Your task to perform on an android device: Open Google Image 0: 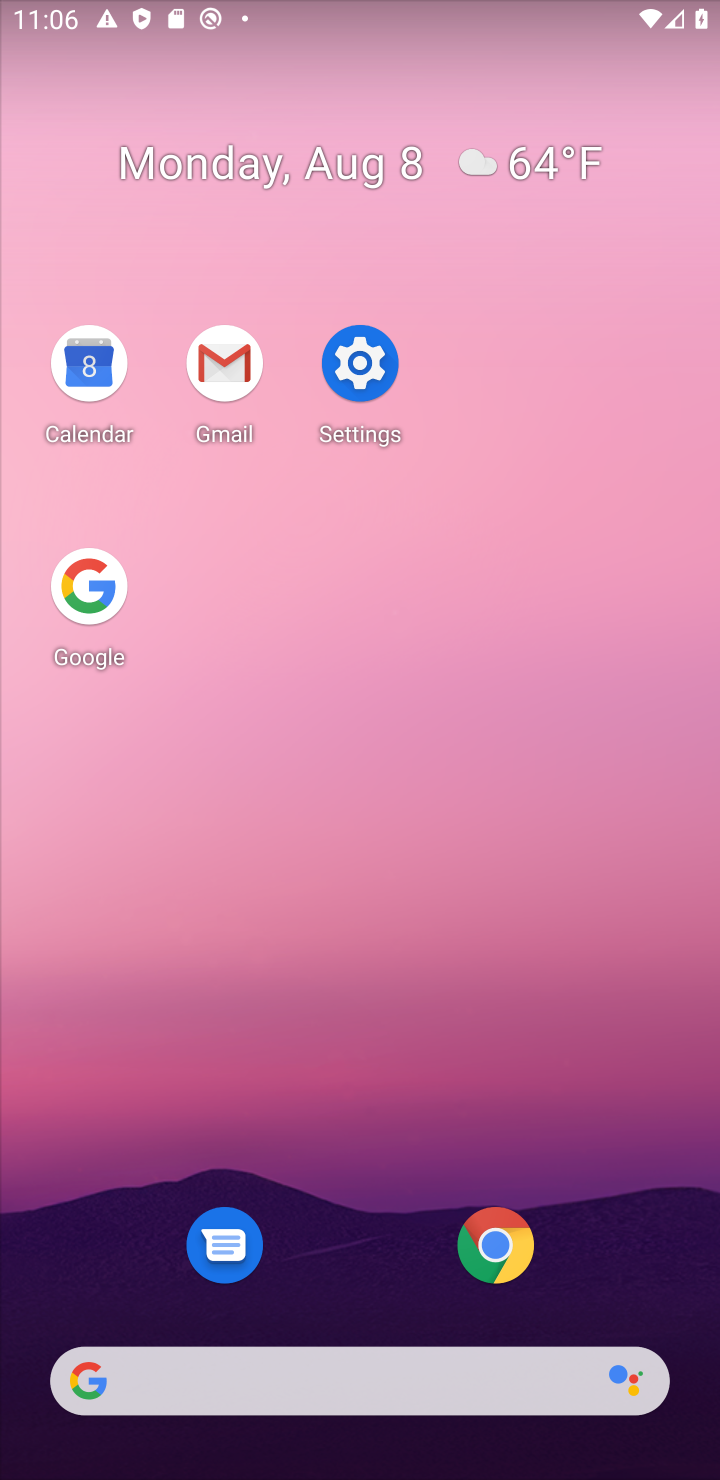
Step 0: drag from (417, 718) to (476, 359)
Your task to perform on an android device: Open Google Image 1: 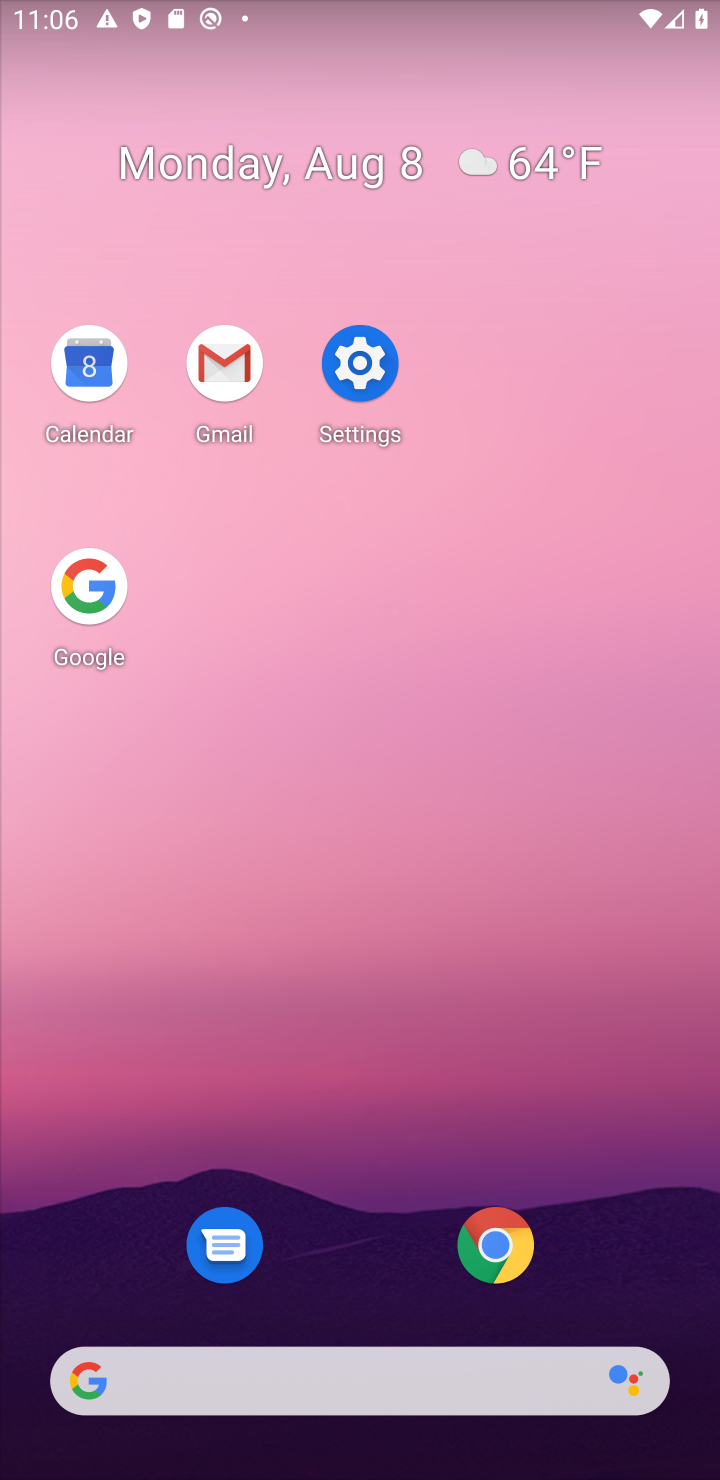
Step 1: drag from (356, 1286) to (374, 392)
Your task to perform on an android device: Open Google Image 2: 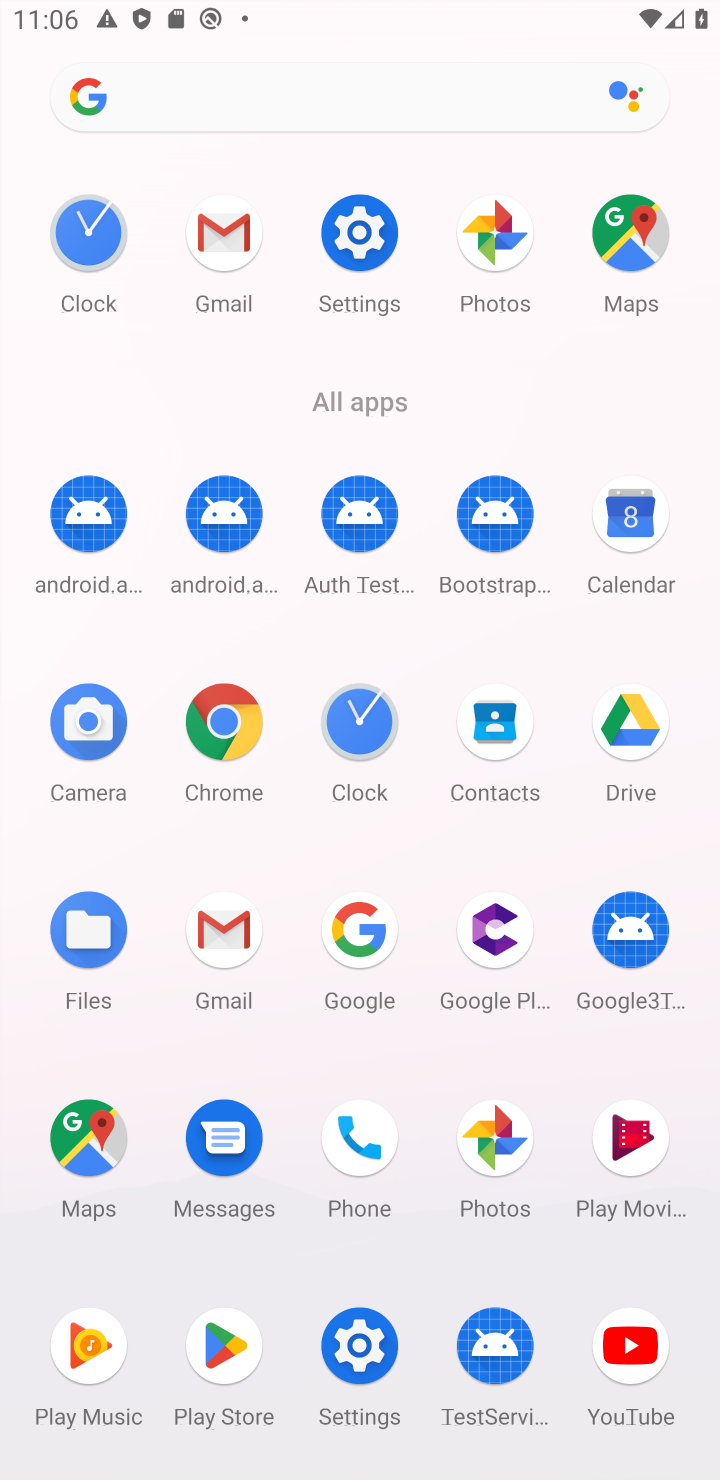
Step 2: click (374, 921)
Your task to perform on an android device: Open Google Image 3: 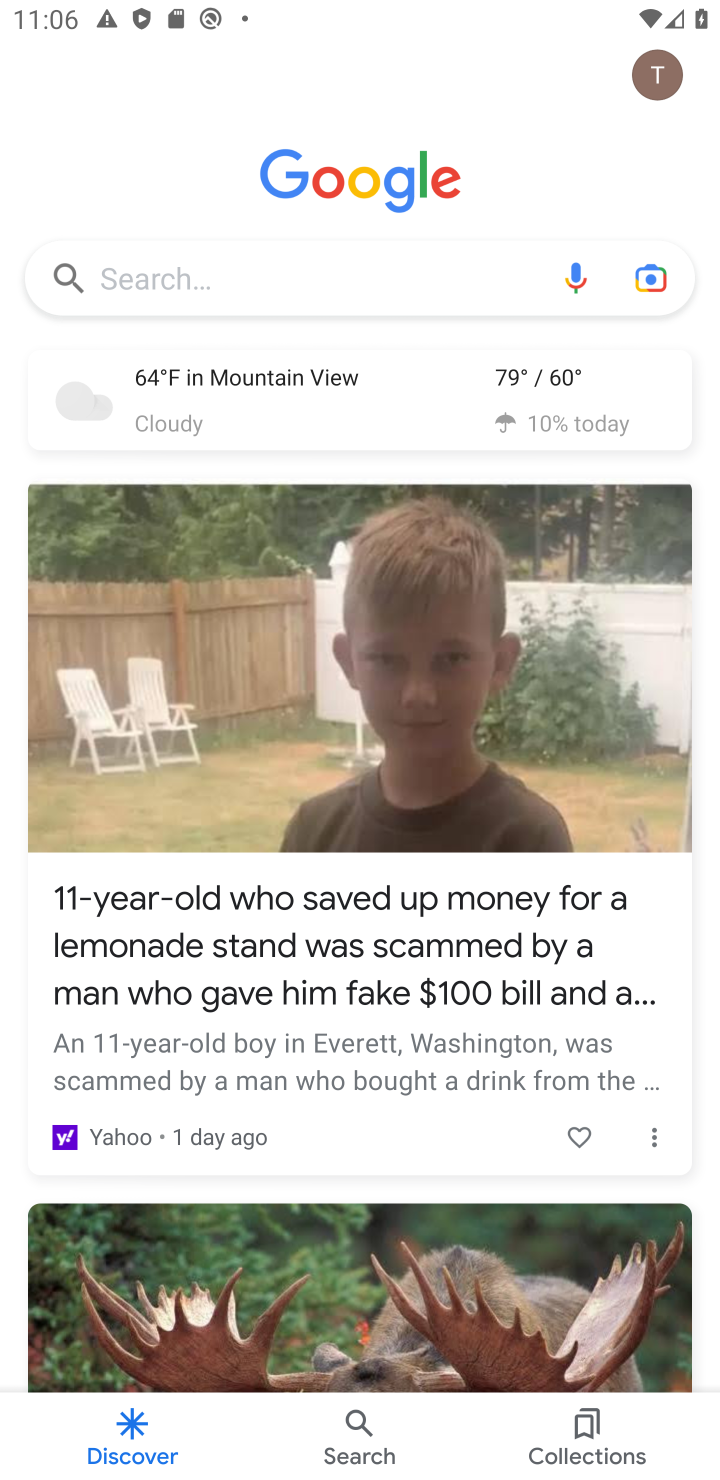
Step 3: task complete